Your task to perform on an android device: turn off notifications settings in the gmail app Image 0: 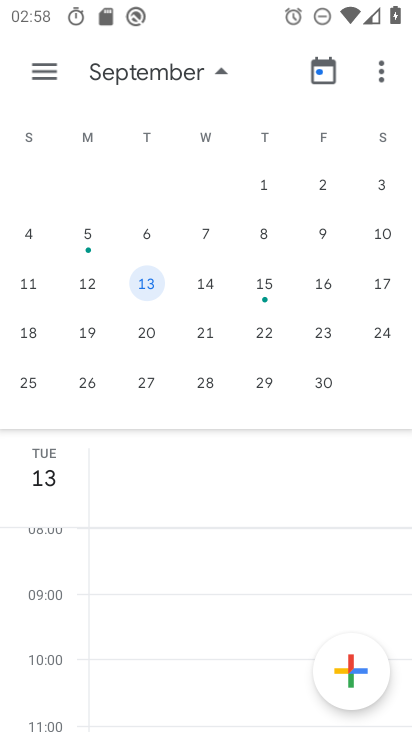
Step 0: press home button
Your task to perform on an android device: turn off notifications settings in the gmail app Image 1: 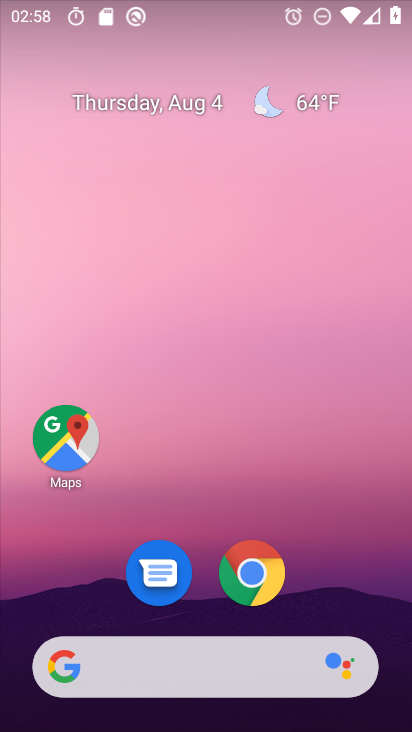
Step 1: drag from (356, 544) to (297, 8)
Your task to perform on an android device: turn off notifications settings in the gmail app Image 2: 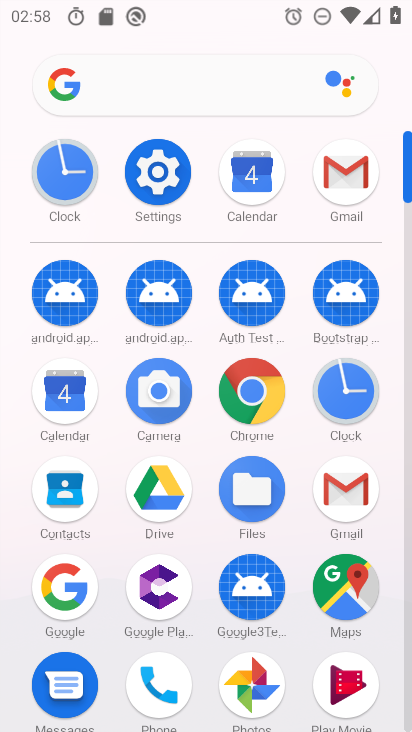
Step 2: click (359, 484)
Your task to perform on an android device: turn off notifications settings in the gmail app Image 3: 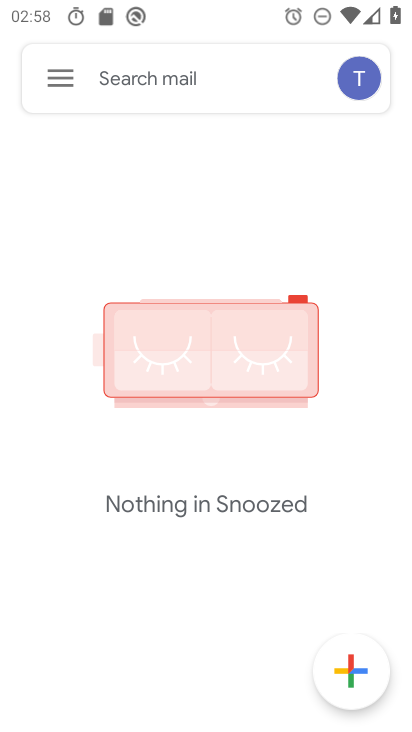
Step 3: click (64, 74)
Your task to perform on an android device: turn off notifications settings in the gmail app Image 4: 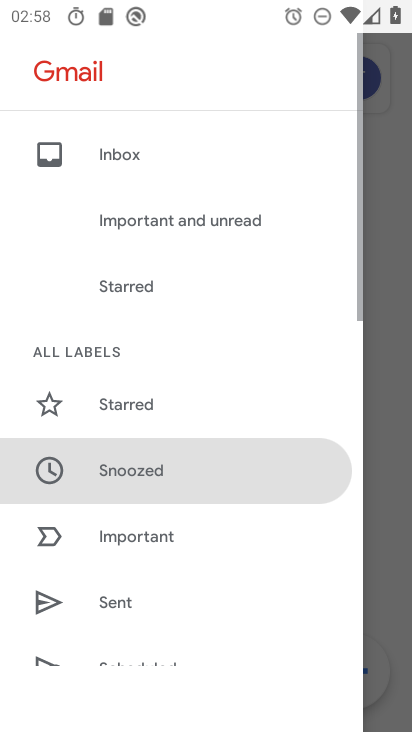
Step 4: drag from (140, 583) to (183, 138)
Your task to perform on an android device: turn off notifications settings in the gmail app Image 5: 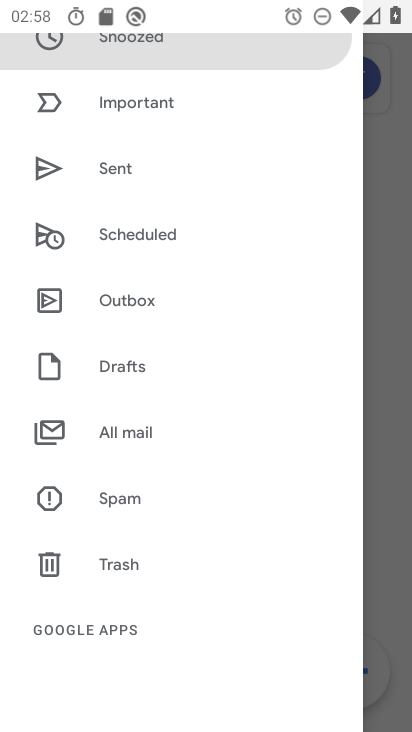
Step 5: drag from (162, 530) to (212, 151)
Your task to perform on an android device: turn off notifications settings in the gmail app Image 6: 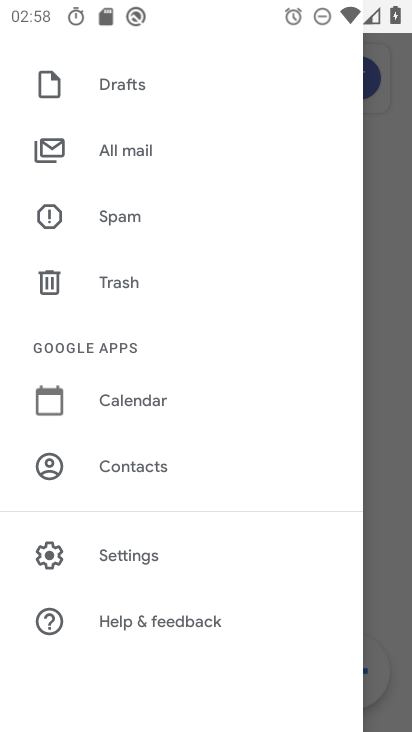
Step 6: click (143, 562)
Your task to perform on an android device: turn off notifications settings in the gmail app Image 7: 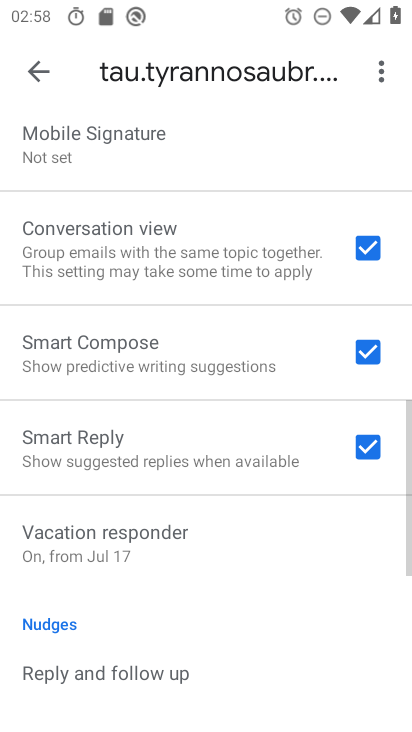
Step 7: drag from (223, 592) to (239, 101)
Your task to perform on an android device: turn off notifications settings in the gmail app Image 8: 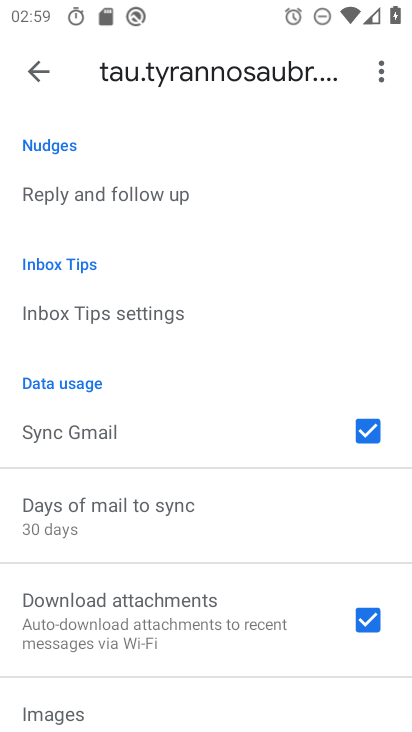
Step 8: drag from (183, 252) to (237, 605)
Your task to perform on an android device: turn off notifications settings in the gmail app Image 9: 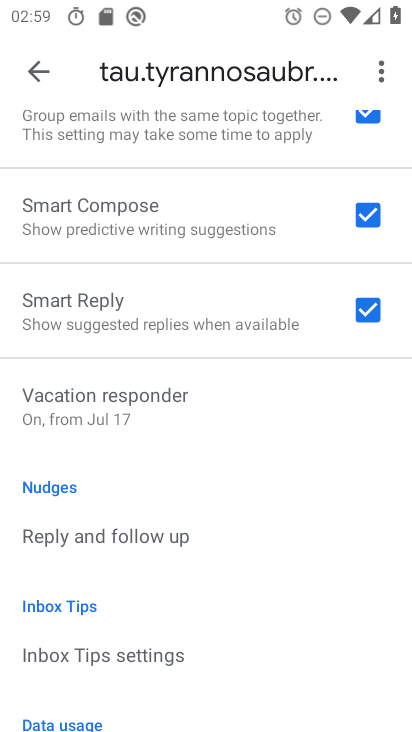
Step 9: drag from (192, 134) to (209, 475)
Your task to perform on an android device: turn off notifications settings in the gmail app Image 10: 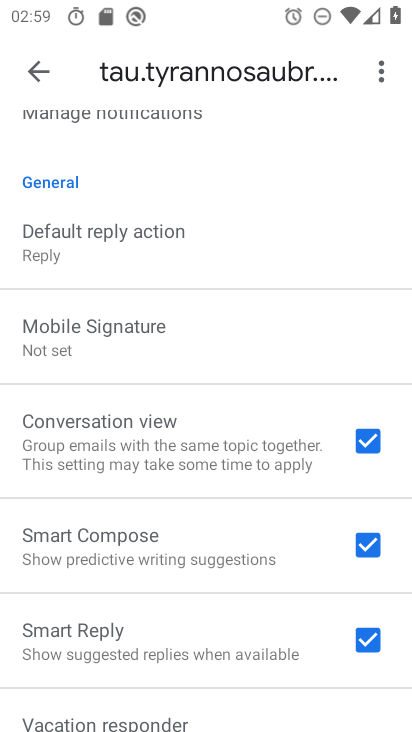
Step 10: drag from (203, 169) to (228, 492)
Your task to perform on an android device: turn off notifications settings in the gmail app Image 11: 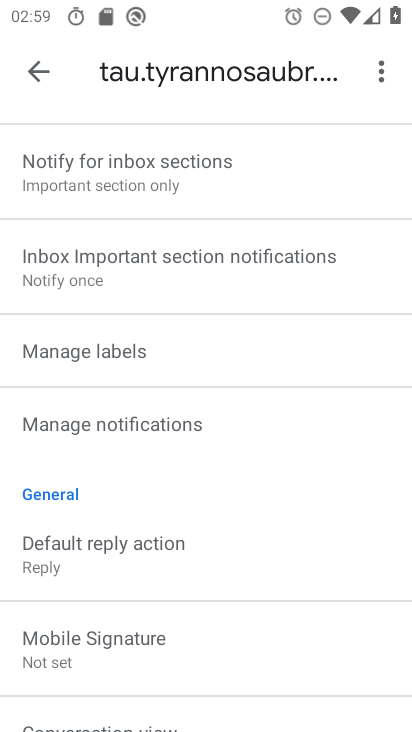
Step 11: click (137, 430)
Your task to perform on an android device: turn off notifications settings in the gmail app Image 12: 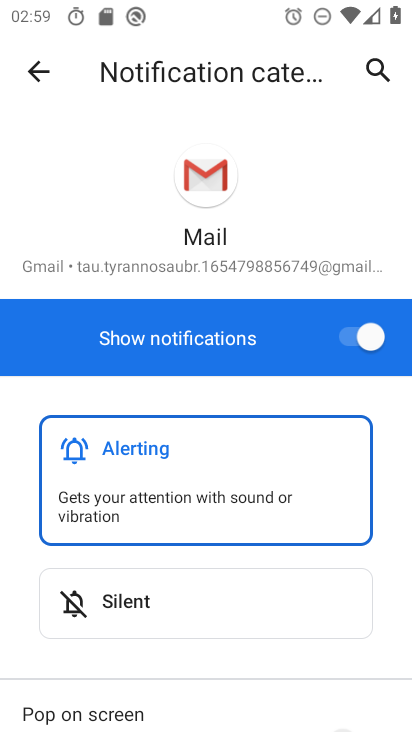
Step 12: click (352, 331)
Your task to perform on an android device: turn off notifications settings in the gmail app Image 13: 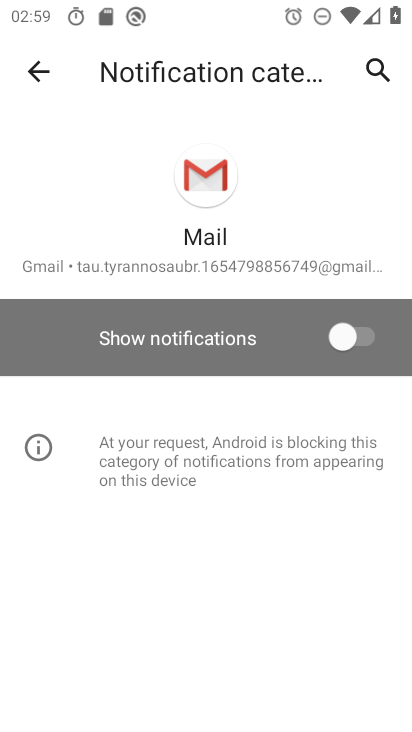
Step 13: task complete